Your task to perform on an android device: Go to Google maps Image 0: 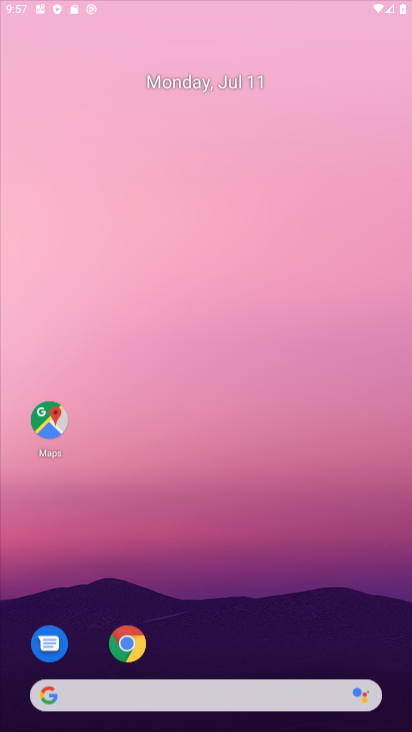
Step 0: drag from (209, 432) to (207, 30)
Your task to perform on an android device: Go to Google maps Image 1: 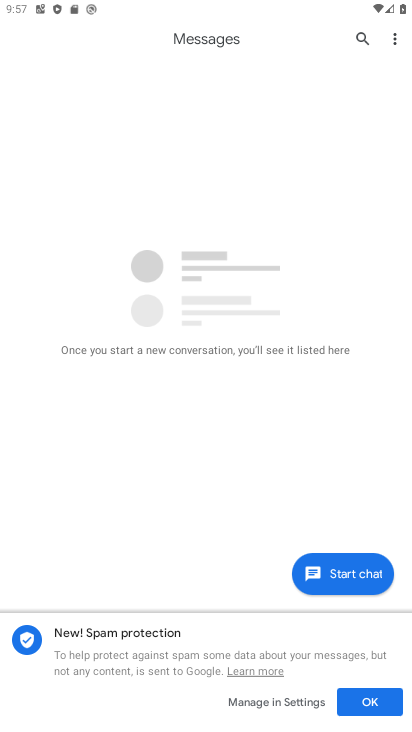
Step 1: press home button
Your task to perform on an android device: Go to Google maps Image 2: 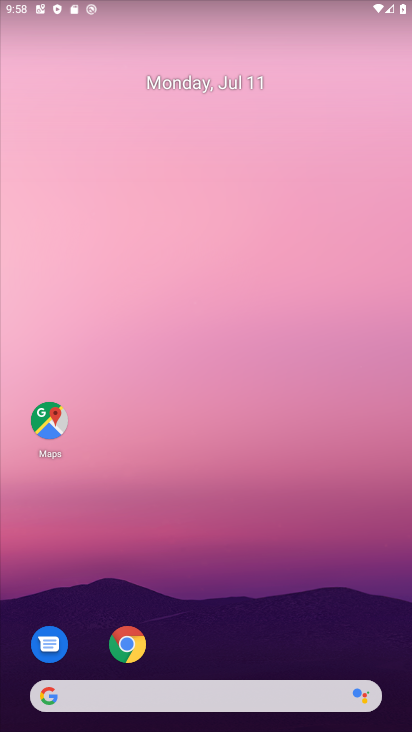
Step 2: click (53, 412)
Your task to perform on an android device: Go to Google maps Image 3: 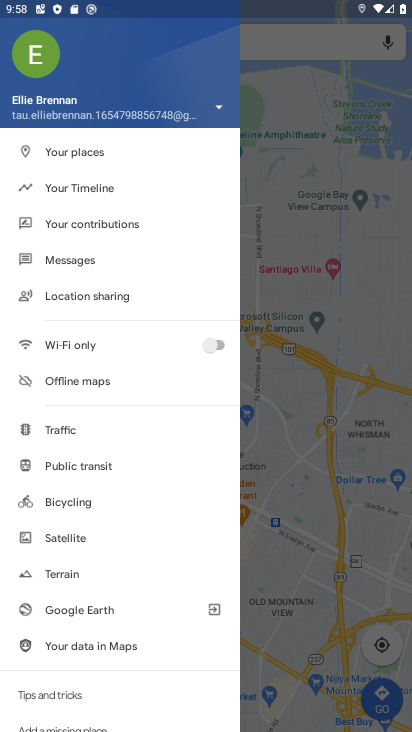
Step 3: task complete